Your task to perform on an android device: open app "Flipkart Online Shopping App" (install if not already installed) and enter user name: "fostered@gmail.com" and password: "negotiated" Image 0: 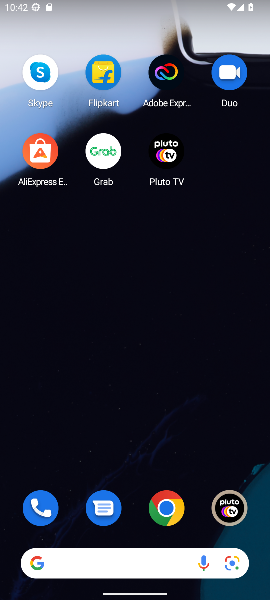
Step 0: click (106, 75)
Your task to perform on an android device: open app "Flipkart Online Shopping App" (install if not already installed) and enter user name: "fostered@gmail.com" and password: "negotiated" Image 1: 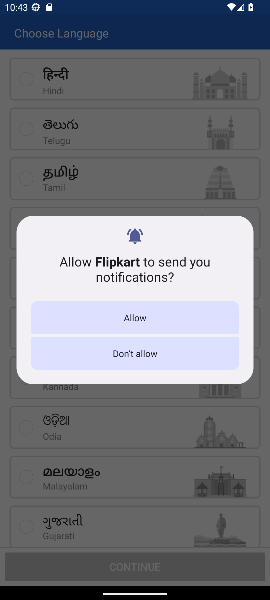
Step 1: task complete